Your task to perform on an android device: see tabs open on other devices in the chrome app Image 0: 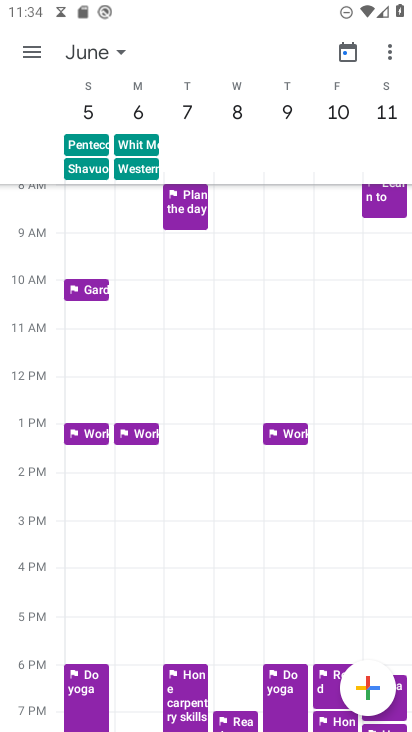
Step 0: press home button
Your task to perform on an android device: see tabs open on other devices in the chrome app Image 1: 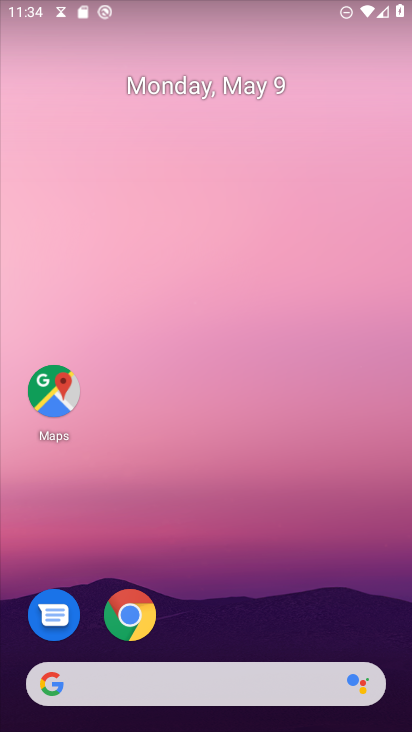
Step 1: click (130, 613)
Your task to perform on an android device: see tabs open on other devices in the chrome app Image 2: 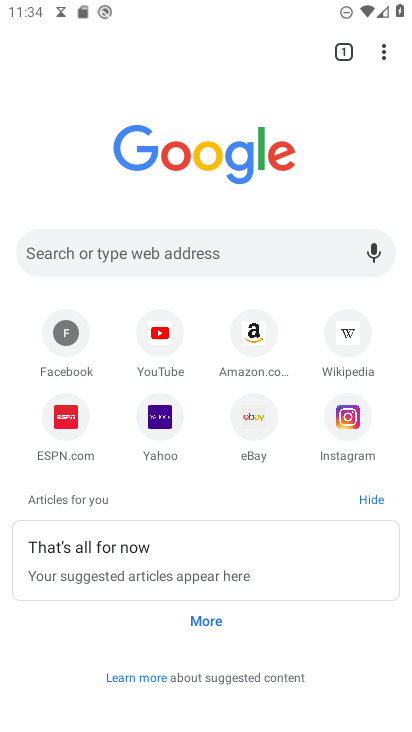
Step 2: click (384, 56)
Your task to perform on an android device: see tabs open on other devices in the chrome app Image 3: 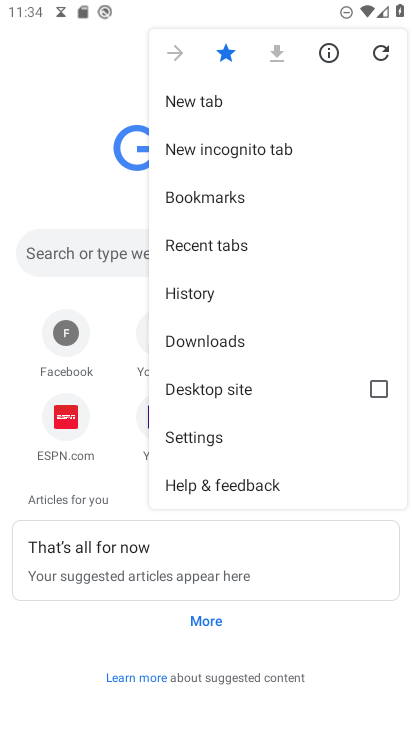
Step 3: click (201, 239)
Your task to perform on an android device: see tabs open on other devices in the chrome app Image 4: 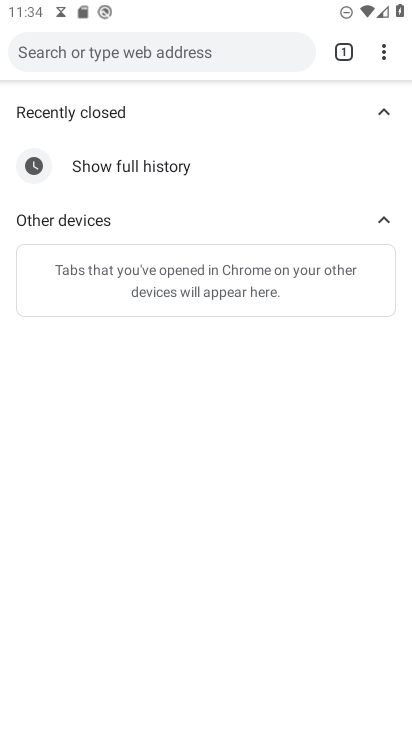
Step 4: task complete